Your task to perform on an android device: toggle javascript in the chrome app Image 0: 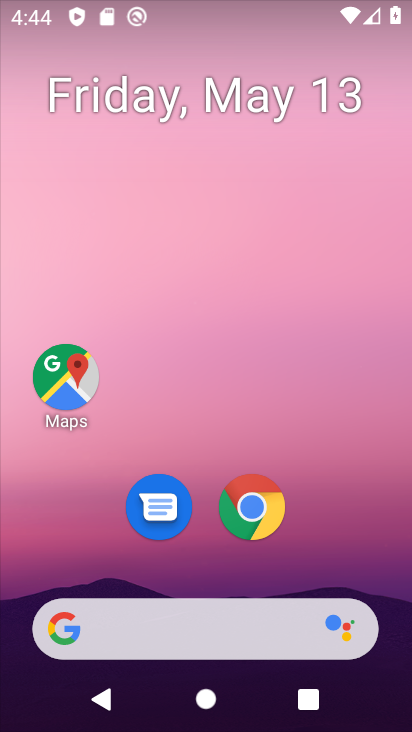
Step 0: click (255, 508)
Your task to perform on an android device: toggle javascript in the chrome app Image 1: 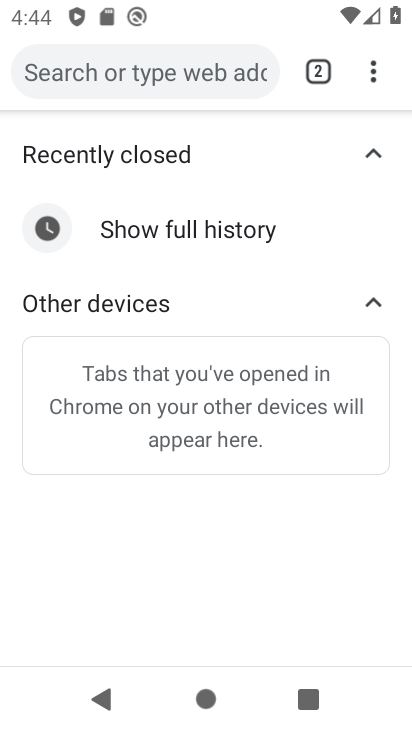
Step 1: click (371, 79)
Your task to perform on an android device: toggle javascript in the chrome app Image 2: 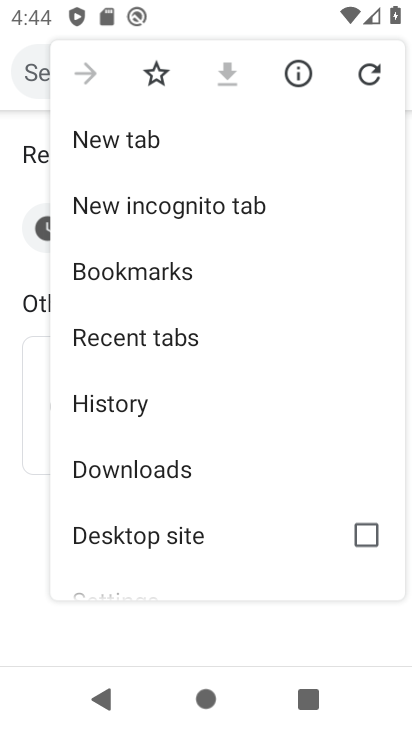
Step 2: drag from (180, 515) to (179, 187)
Your task to perform on an android device: toggle javascript in the chrome app Image 3: 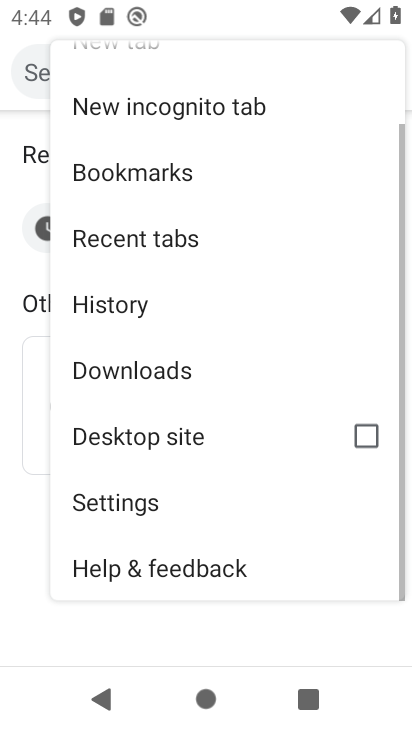
Step 3: click (155, 488)
Your task to perform on an android device: toggle javascript in the chrome app Image 4: 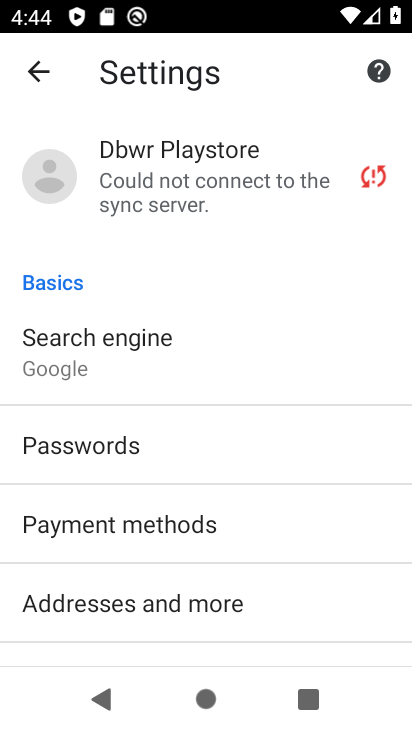
Step 4: drag from (235, 564) to (224, 158)
Your task to perform on an android device: toggle javascript in the chrome app Image 5: 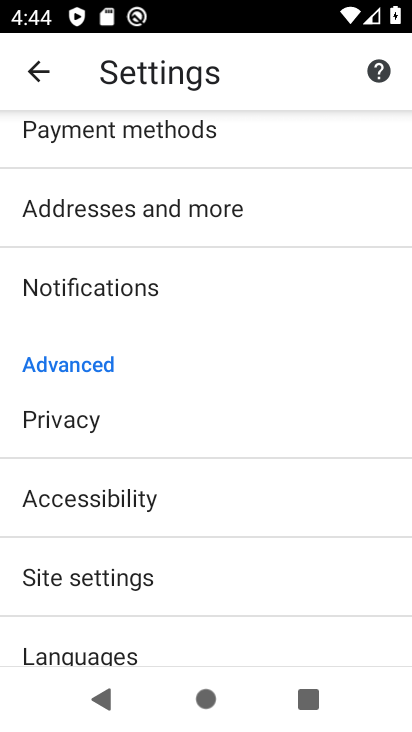
Step 5: drag from (165, 543) to (160, 321)
Your task to perform on an android device: toggle javascript in the chrome app Image 6: 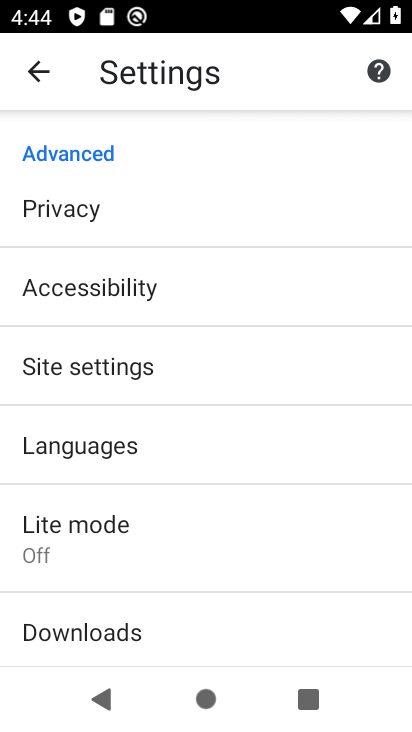
Step 6: click (102, 363)
Your task to perform on an android device: toggle javascript in the chrome app Image 7: 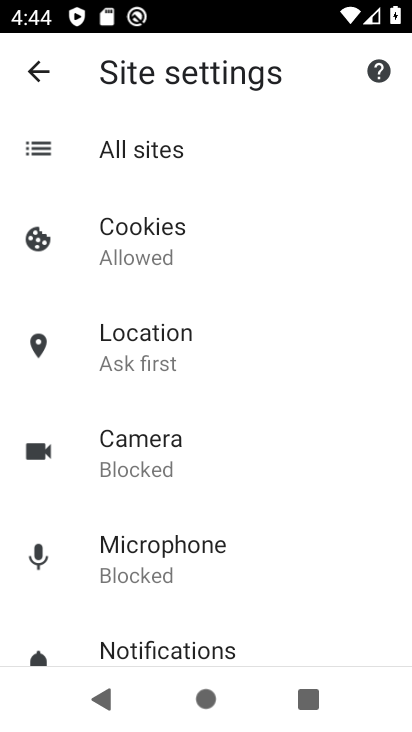
Step 7: drag from (211, 575) to (223, 272)
Your task to perform on an android device: toggle javascript in the chrome app Image 8: 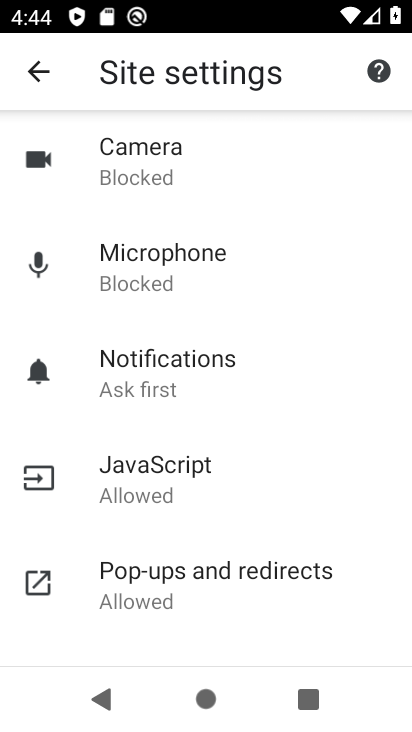
Step 8: click (179, 480)
Your task to perform on an android device: toggle javascript in the chrome app Image 9: 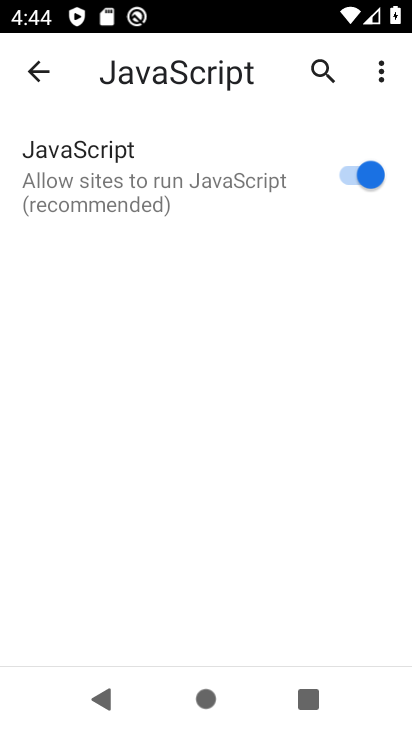
Step 9: click (377, 162)
Your task to perform on an android device: toggle javascript in the chrome app Image 10: 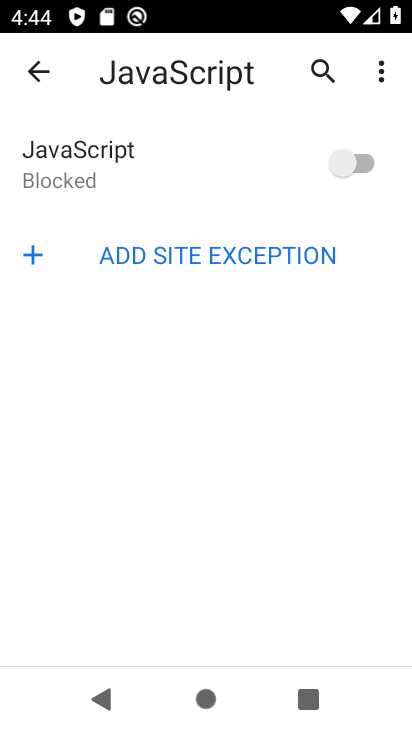
Step 10: task complete